Your task to perform on an android device: check google app version Image 0: 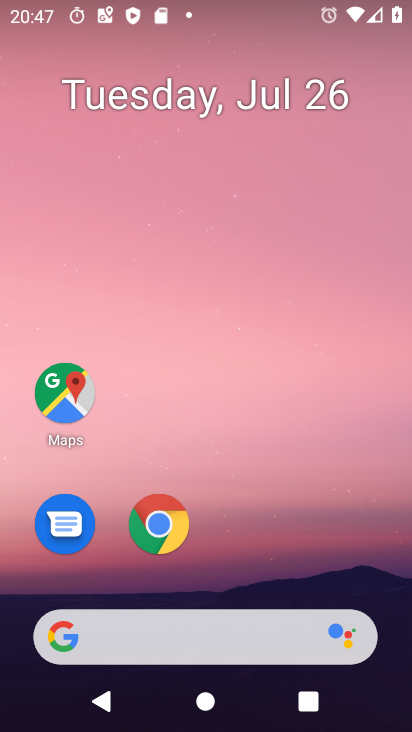
Step 0: click (181, 626)
Your task to perform on an android device: check google app version Image 1: 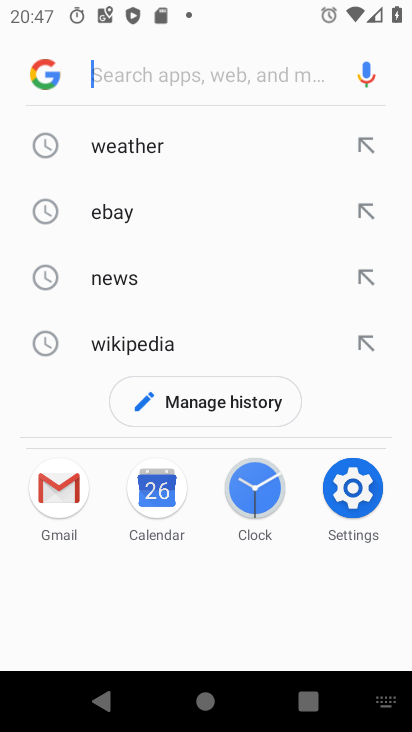
Step 1: click (46, 66)
Your task to perform on an android device: check google app version Image 2: 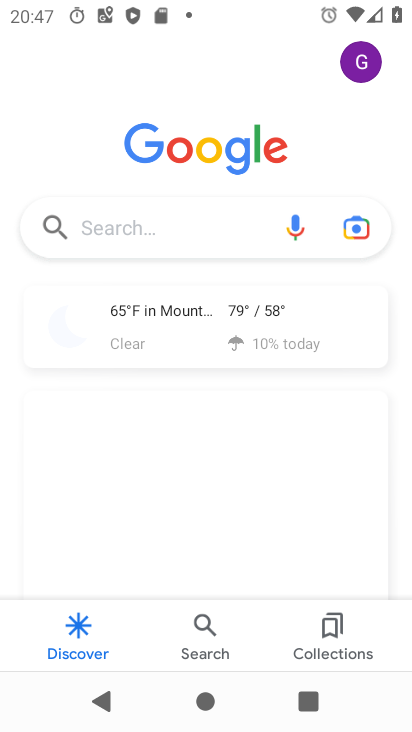
Step 2: click (349, 57)
Your task to perform on an android device: check google app version Image 3: 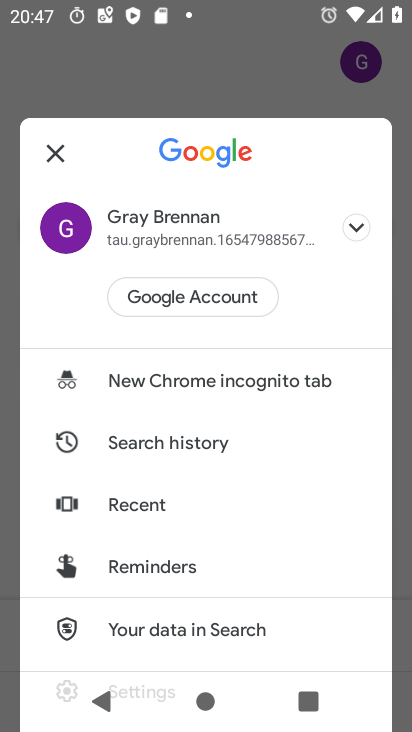
Step 3: drag from (258, 523) to (284, 111)
Your task to perform on an android device: check google app version Image 4: 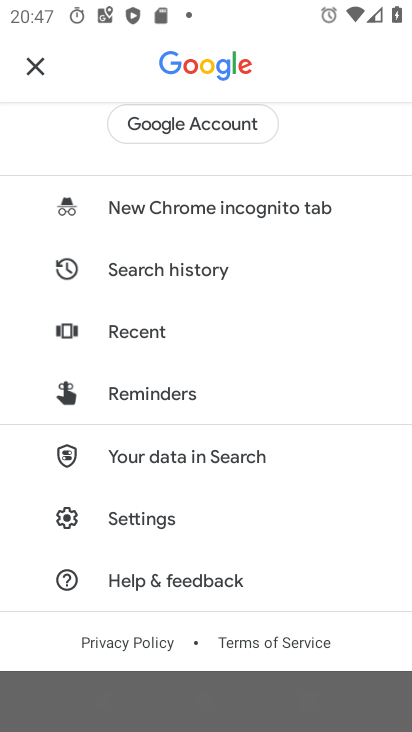
Step 4: click (155, 513)
Your task to perform on an android device: check google app version Image 5: 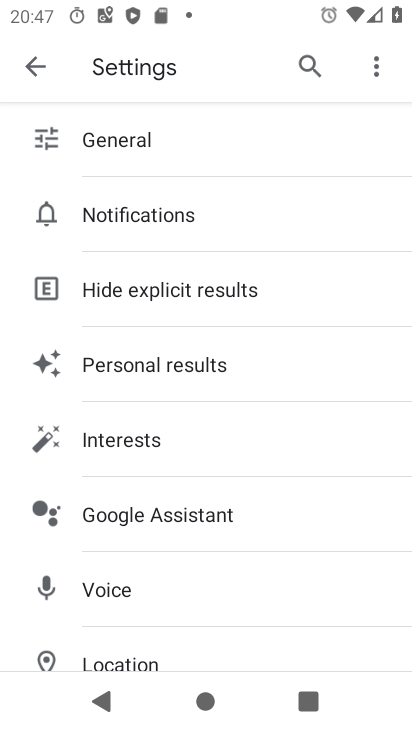
Step 5: drag from (222, 557) to (232, 151)
Your task to perform on an android device: check google app version Image 6: 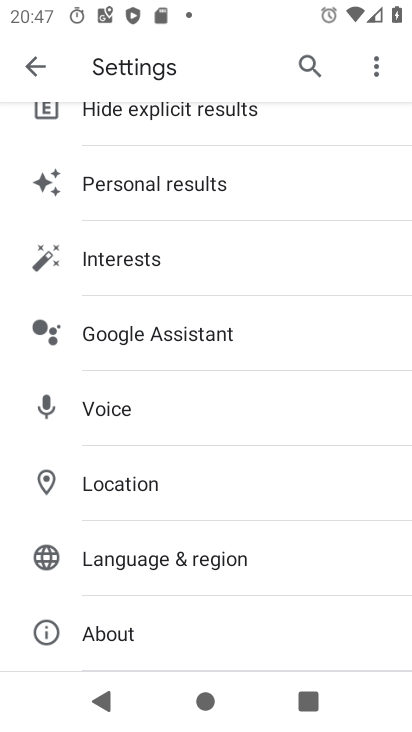
Step 6: click (107, 630)
Your task to perform on an android device: check google app version Image 7: 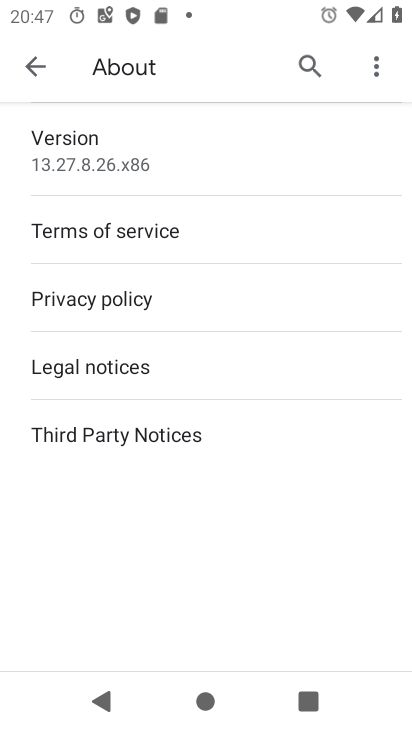
Step 7: task complete